Your task to perform on an android device: Open ESPN.com Image 0: 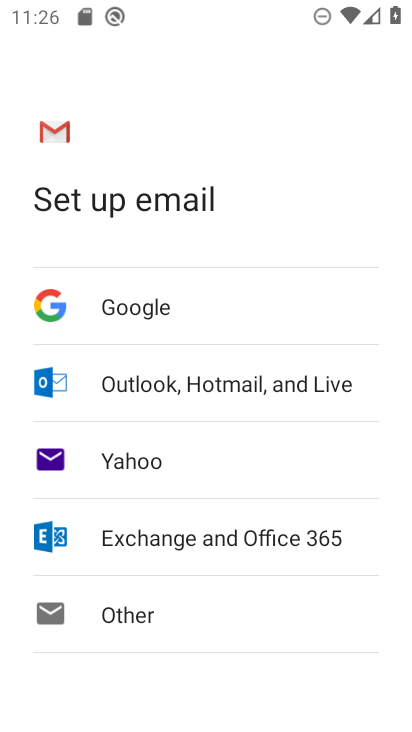
Step 0: press home button
Your task to perform on an android device: Open ESPN.com Image 1: 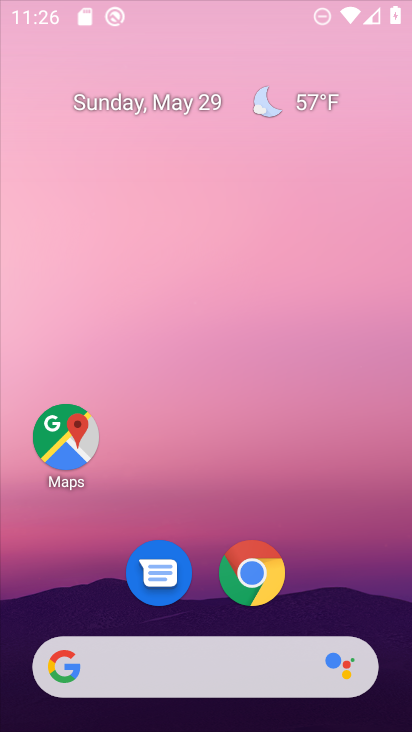
Step 1: drag from (301, 677) to (310, 98)
Your task to perform on an android device: Open ESPN.com Image 2: 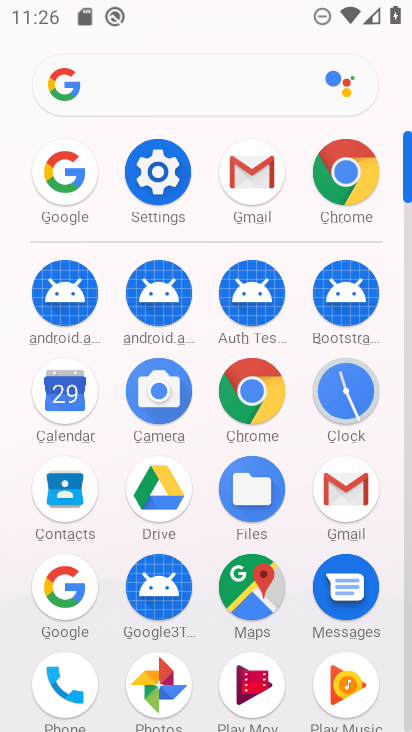
Step 2: click (248, 385)
Your task to perform on an android device: Open ESPN.com Image 3: 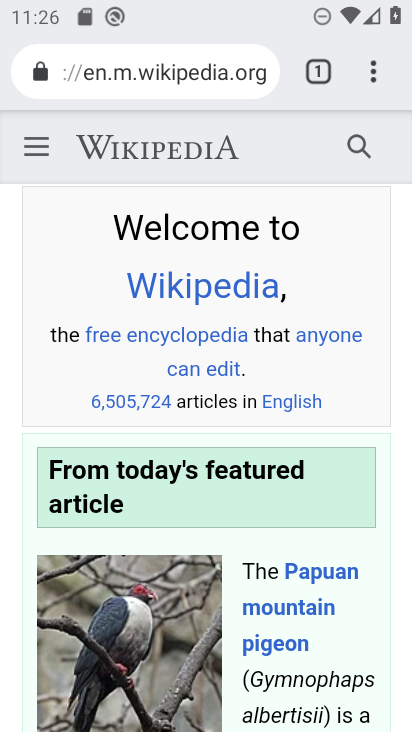
Step 3: type "espn.com"
Your task to perform on an android device: Open ESPN.com Image 4: 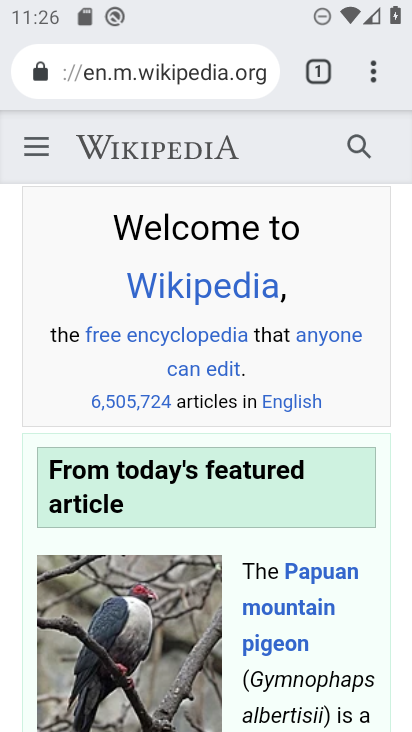
Step 4: click (247, 76)
Your task to perform on an android device: Open ESPN.com Image 5: 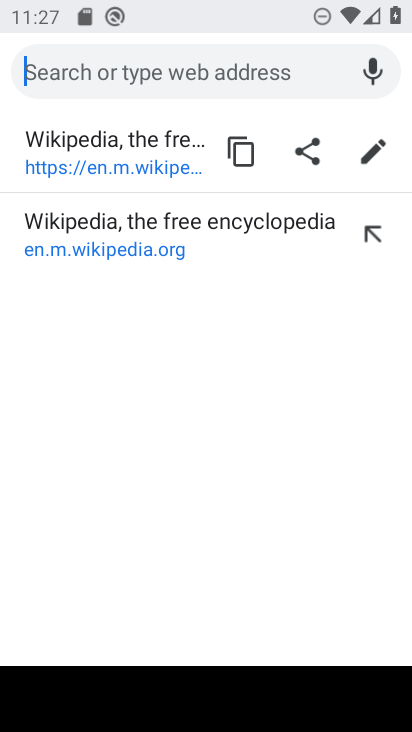
Step 5: type "espn.com"
Your task to perform on an android device: Open ESPN.com Image 6: 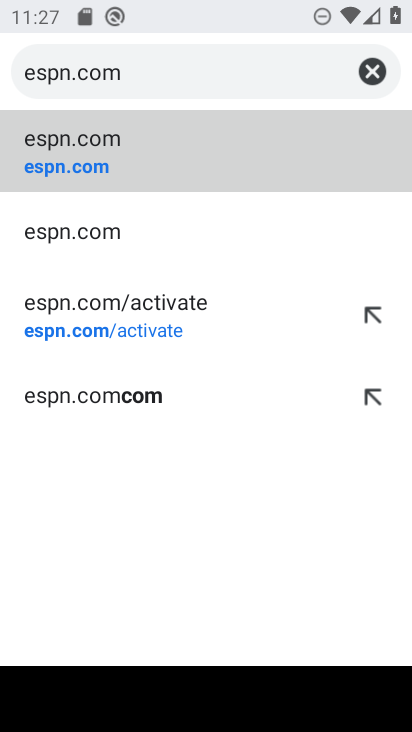
Step 6: click (263, 161)
Your task to perform on an android device: Open ESPN.com Image 7: 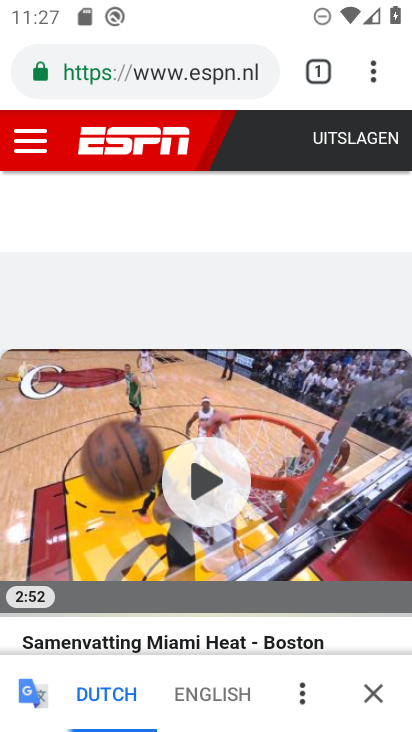
Step 7: task complete